Your task to perform on an android device: Clear all items from cart on amazon.com. Add "logitech g pro" to the cart on amazon.com Image 0: 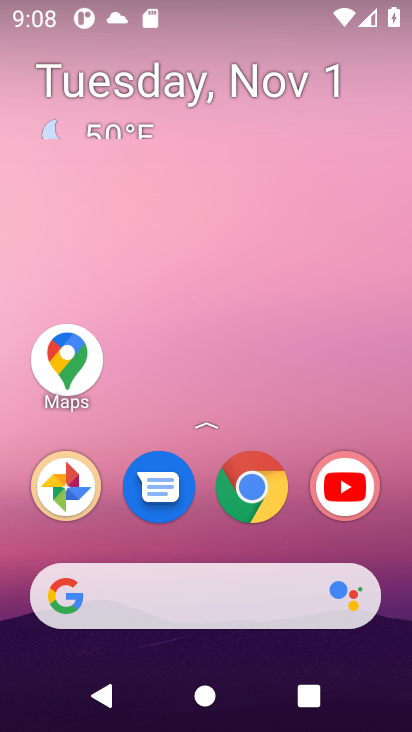
Step 0: drag from (202, 443) to (319, 30)
Your task to perform on an android device: Clear all items from cart on amazon.com. Add "logitech g pro" to the cart on amazon.com Image 1: 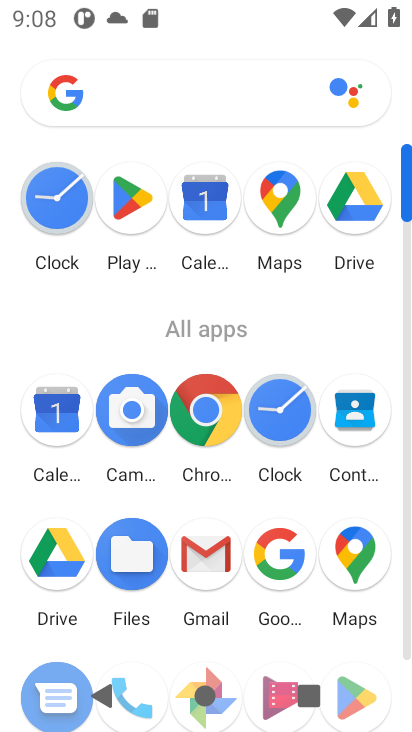
Step 1: click (215, 405)
Your task to perform on an android device: Clear all items from cart on amazon.com. Add "logitech g pro" to the cart on amazon.com Image 2: 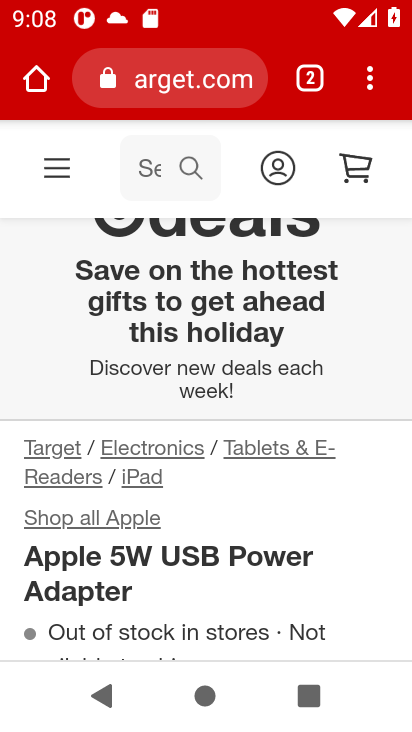
Step 2: click (165, 71)
Your task to perform on an android device: Clear all items from cart on amazon.com. Add "logitech g pro" to the cart on amazon.com Image 3: 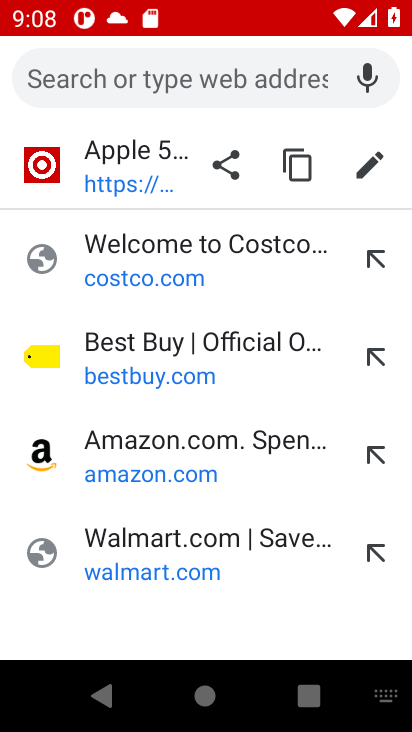
Step 3: click (126, 449)
Your task to perform on an android device: Clear all items from cart on amazon.com. Add "logitech g pro" to the cart on amazon.com Image 4: 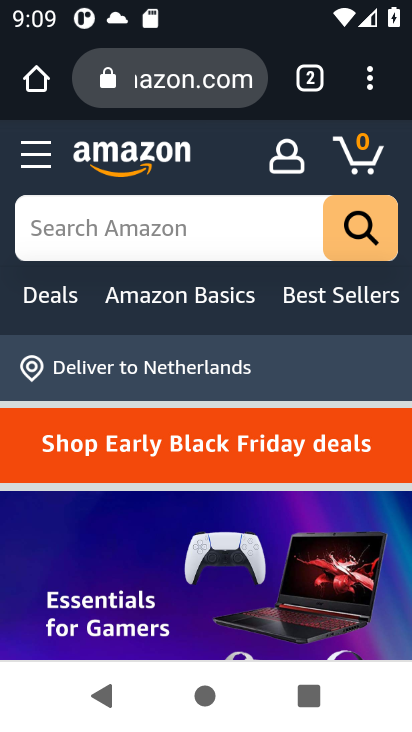
Step 4: click (129, 228)
Your task to perform on an android device: Clear all items from cart on amazon.com. Add "logitech g pro" to the cart on amazon.com Image 5: 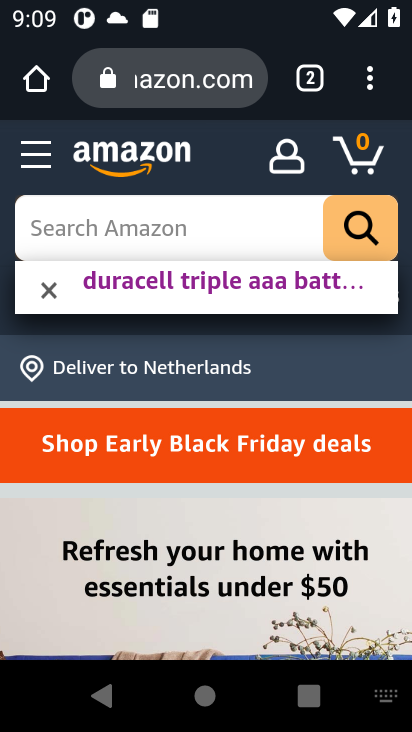
Step 5: type "logitech g pro"
Your task to perform on an android device: Clear all items from cart on amazon.com. Add "logitech g pro" to the cart on amazon.com Image 6: 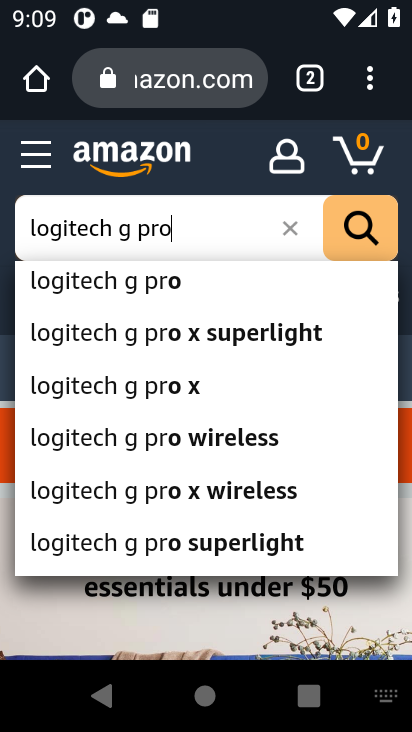
Step 6: type ""
Your task to perform on an android device: Clear all items from cart on amazon.com. Add "logitech g pro" to the cart on amazon.com Image 7: 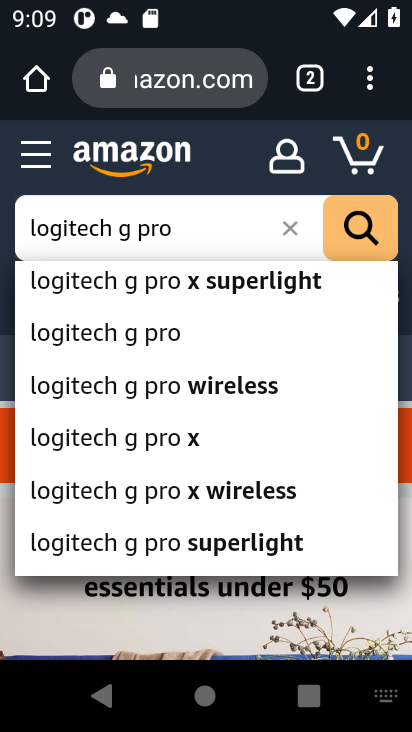
Step 7: click (168, 330)
Your task to perform on an android device: Clear all items from cart on amazon.com. Add "logitech g pro" to the cart on amazon.com Image 8: 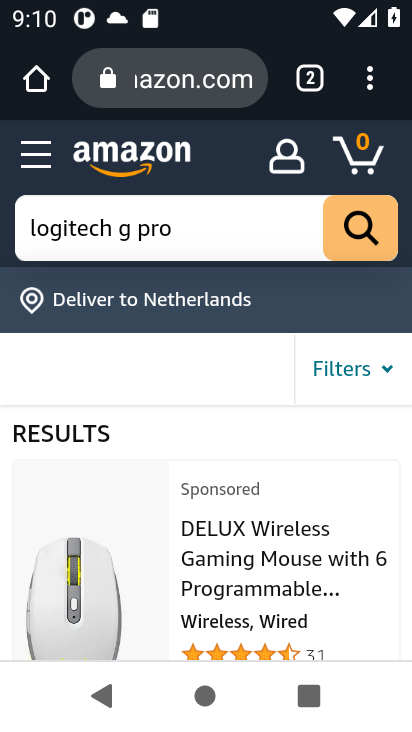
Step 8: drag from (367, 632) to (365, 348)
Your task to perform on an android device: Clear all items from cart on amazon.com. Add "logitech g pro" to the cart on amazon.com Image 9: 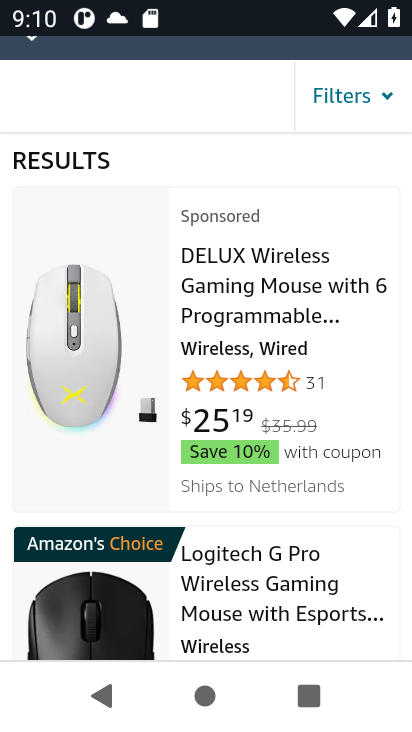
Step 9: click (244, 576)
Your task to perform on an android device: Clear all items from cart on amazon.com. Add "logitech g pro" to the cart on amazon.com Image 10: 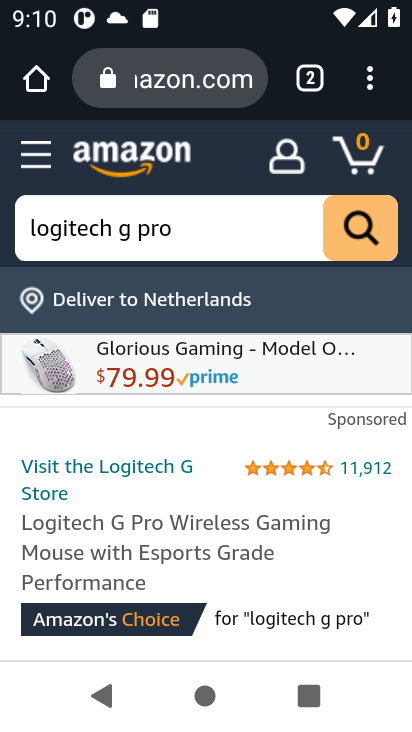
Step 10: drag from (242, 597) to (235, 361)
Your task to perform on an android device: Clear all items from cart on amazon.com. Add "logitech g pro" to the cart on amazon.com Image 11: 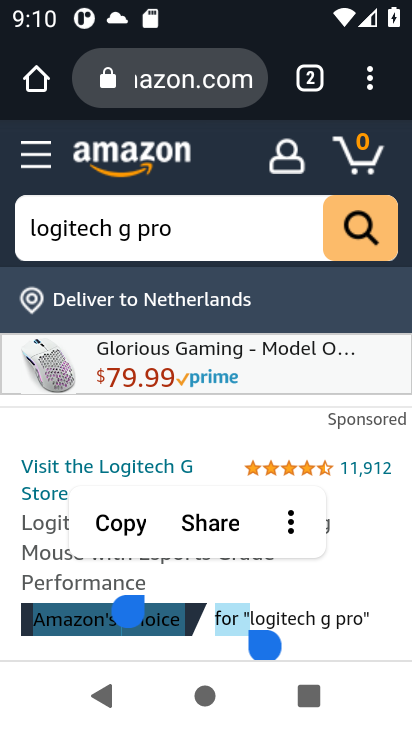
Step 11: click (375, 561)
Your task to perform on an android device: Clear all items from cart on amazon.com. Add "logitech g pro" to the cart on amazon.com Image 12: 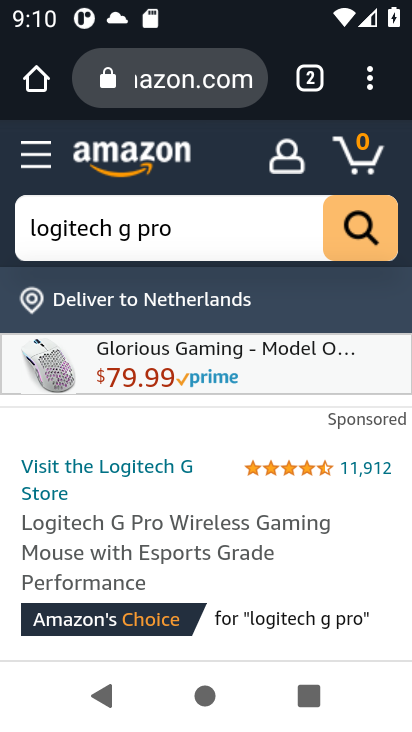
Step 12: drag from (276, 582) to (294, 199)
Your task to perform on an android device: Clear all items from cart on amazon.com. Add "logitech g pro" to the cart on amazon.com Image 13: 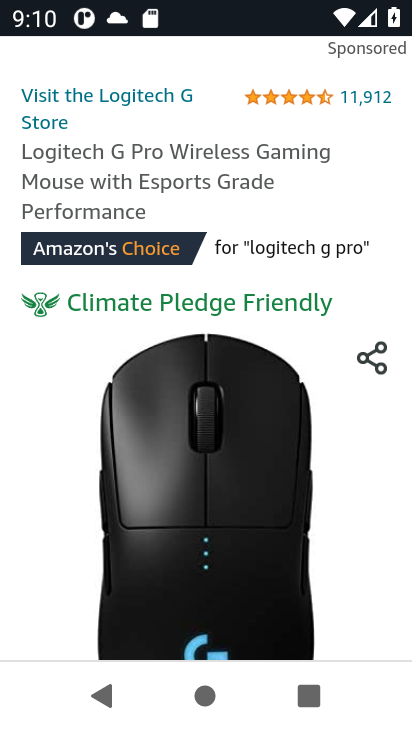
Step 13: drag from (338, 625) to (326, 260)
Your task to perform on an android device: Clear all items from cart on amazon.com. Add "logitech g pro" to the cart on amazon.com Image 14: 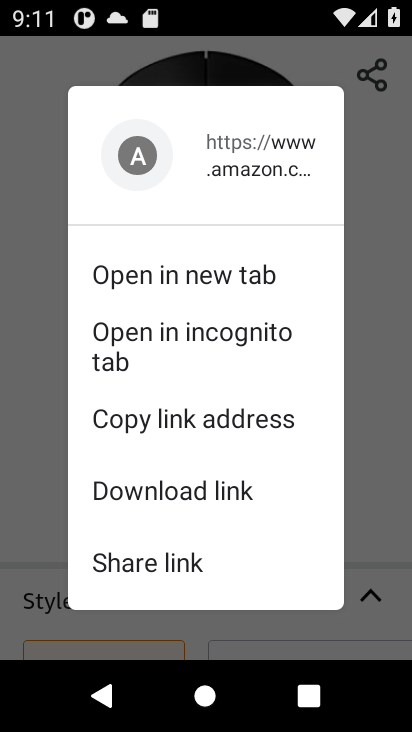
Step 14: click (33, 396)
Your task to perform on an android device: Clear all items from cart on amazon.com. Add "logitech g pro" to the cart on amazon.com Image 15: 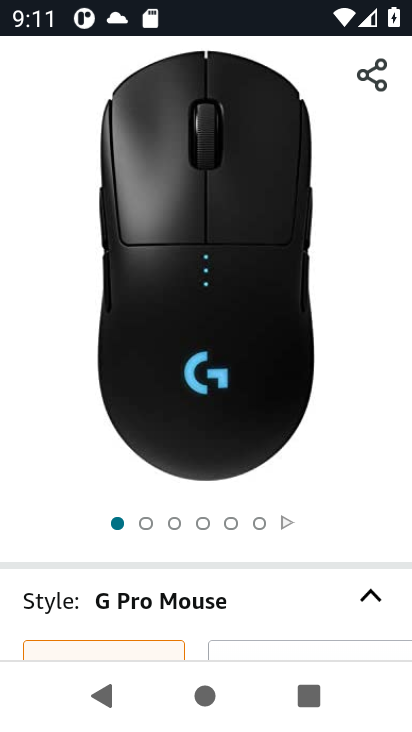
Step 15: drag from (255, 621) to (270, 265)
Your task to perform on an android device: Clear all items from cart on amazon.com. Add "logitech g pro" to the cart on amazon.com Image 16: 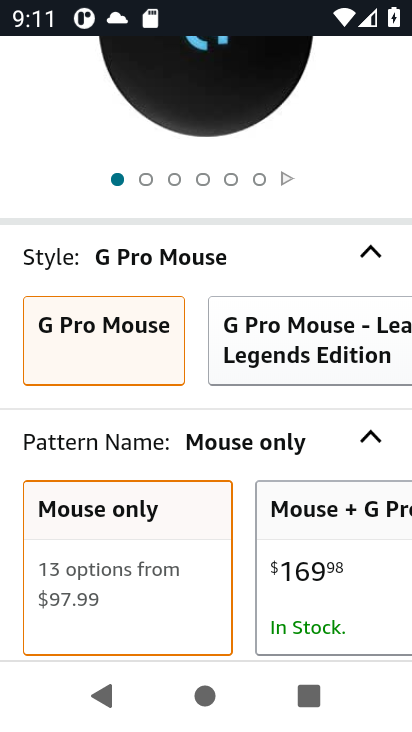
Step 16: drag from (248, 627) to (255, 222)
Your task to perform on an android device: Clear all items from cart on amazon.com. Add "logitech g pro" to the cart on amazon.com Image 17: 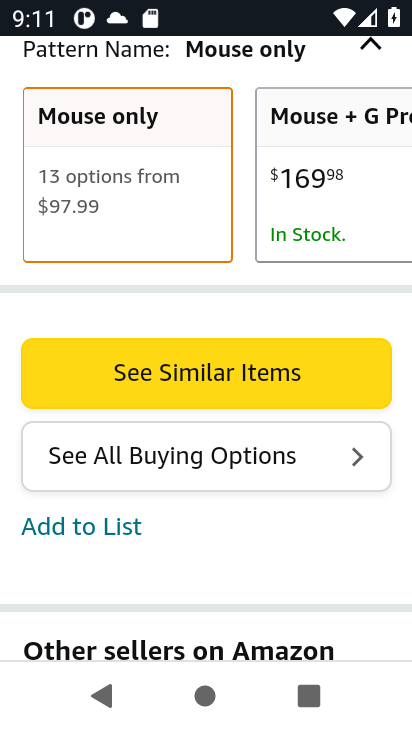
Step 17: click (319, 155)
Your task to perform on an android device: Clear all items from cart on amazon.com. Add "logitech g pro" to the cart on amazon.com Image 18: 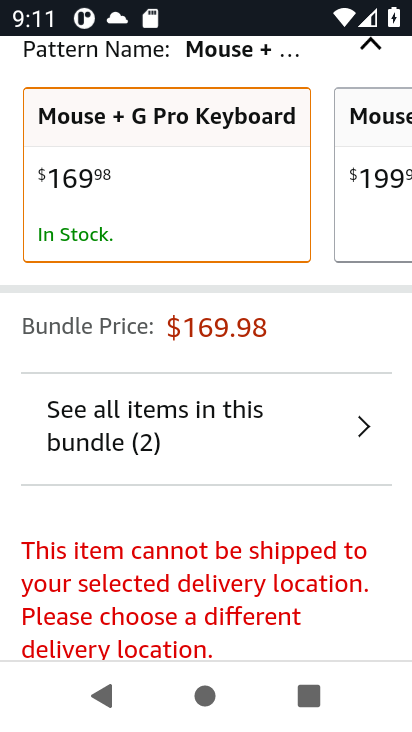
Step 18: task complete